Your task to perform on an android device: find photos in the google photos app Image 0: 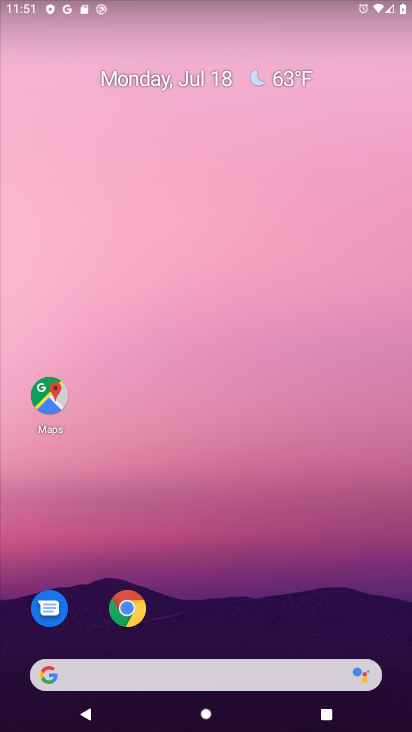
Step 0: drag from (289, 598) to (294, 91)
Your task to perform on an android device: find photos in the google photos app Image 1: 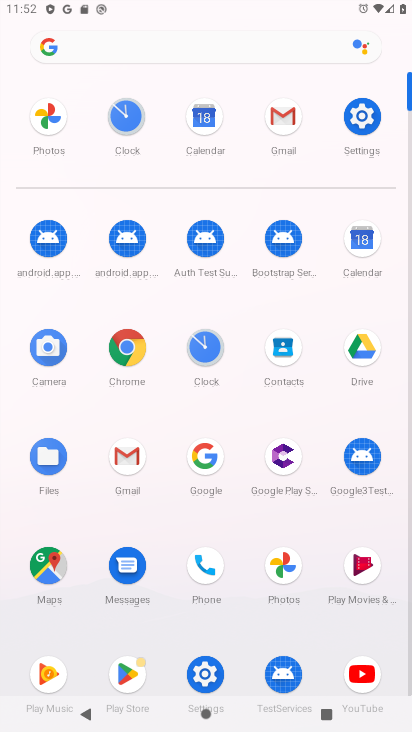
Step 1: click (290, 570)
Your task to perform on an android device: find photos in the google photos app Image 2: 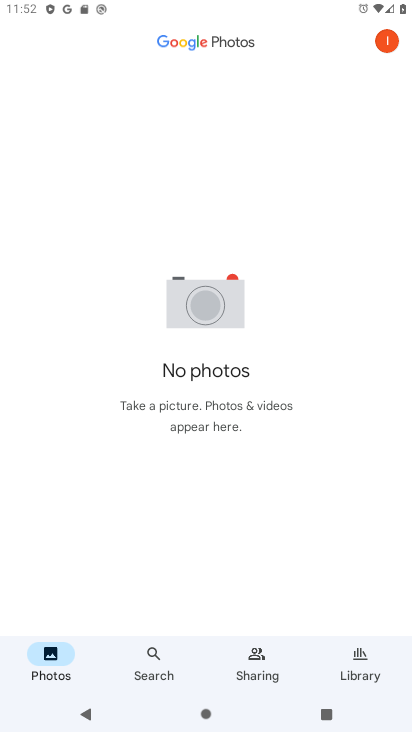
Step 2: task complete